Your task to perform on an android device: open a new tab in the chrome app Image 0: 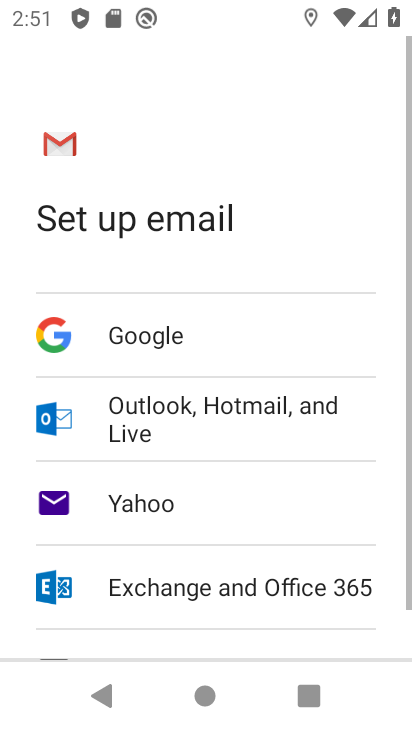
Step 0: press back button
Your task to perform on an android device: open a new tab in the chrome app Image 1: 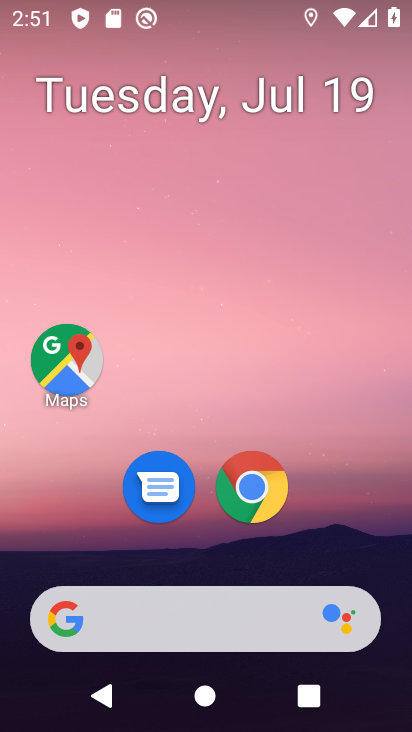
Step 1: click (244, 496)
Your task to perform on an android device: open a new tab in the chrome app Image 2: 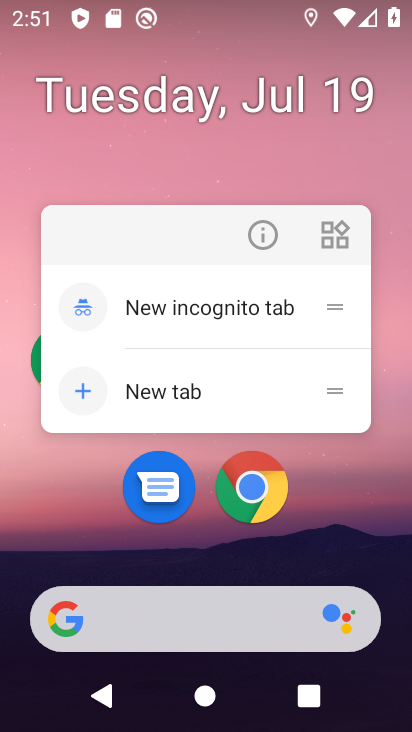
Step 2: click (254, 491)
Your task to perform on an android device: open a new tab in the chrome app Image 3: 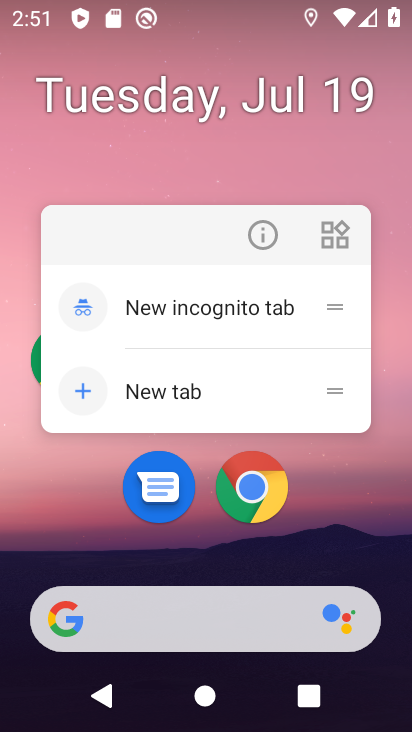
Step 3: click (254, 492)
Your task to perform on an android device: open a new tab in the chrome app Image 4: 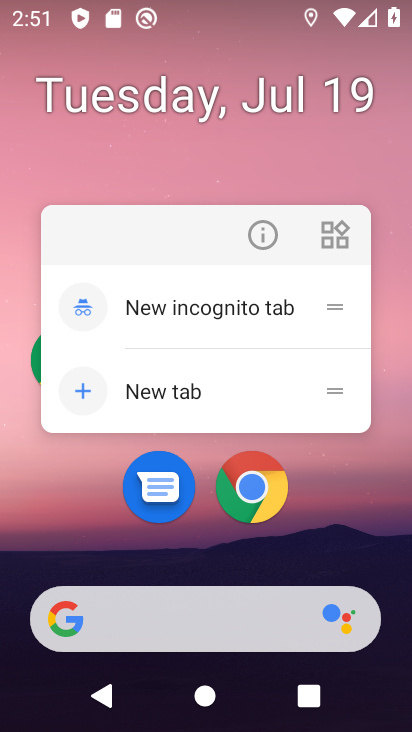
Step 4: click (260, 481)
Your task to perform on an android device: open a new tab in the chrome app Image 5: 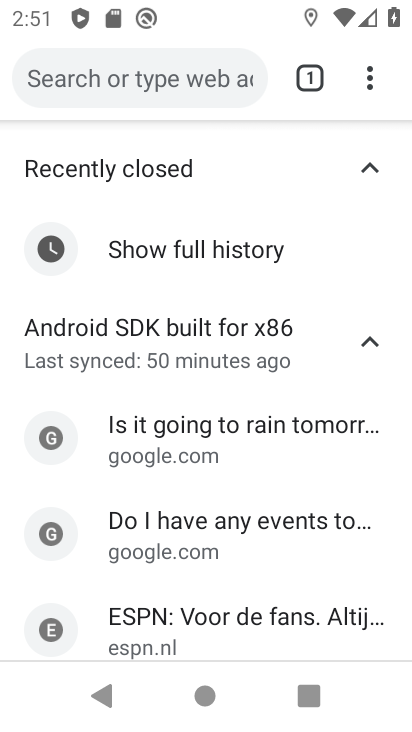
Step 5: click (302, 74)
Your task to perform on an android device: open a new tab in the chrome app Image 6: 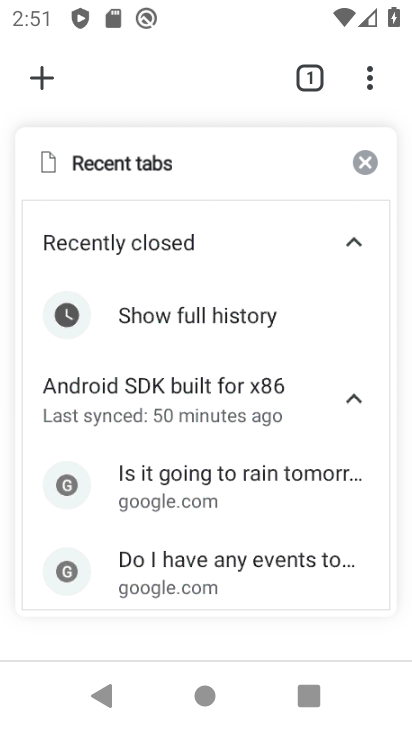
Step 6: click (45, 73)
Your task to perform on an android device: open a new tab in the chrome app Image 7: 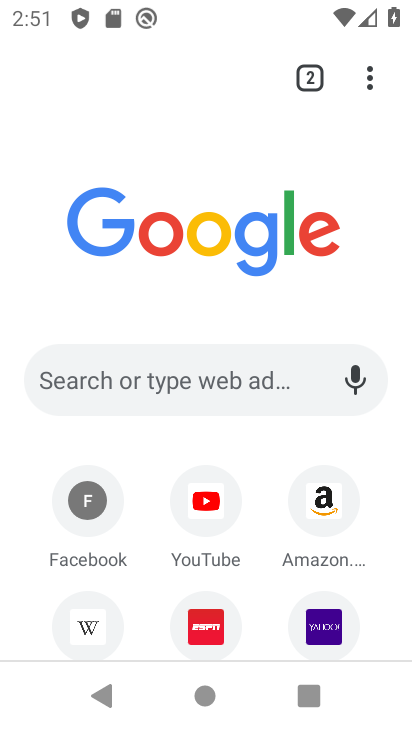
Step 7: task complete